Your task to perform on an android device: turn off picture-in-picture Image 0: 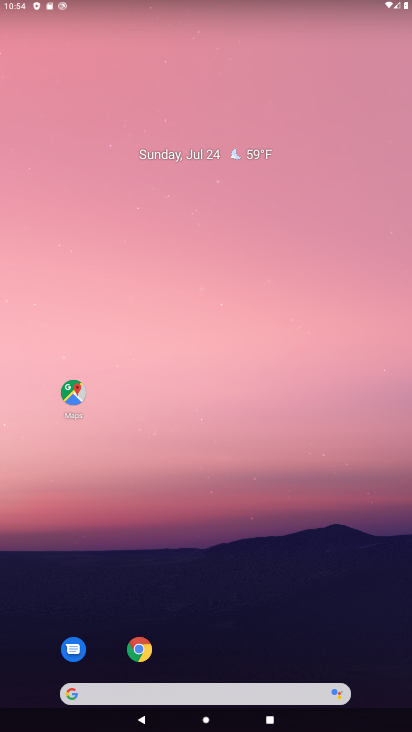
Step 0: click (144, 649)
Your task to perform on an android device: turn off picture-in-picture Image 1: 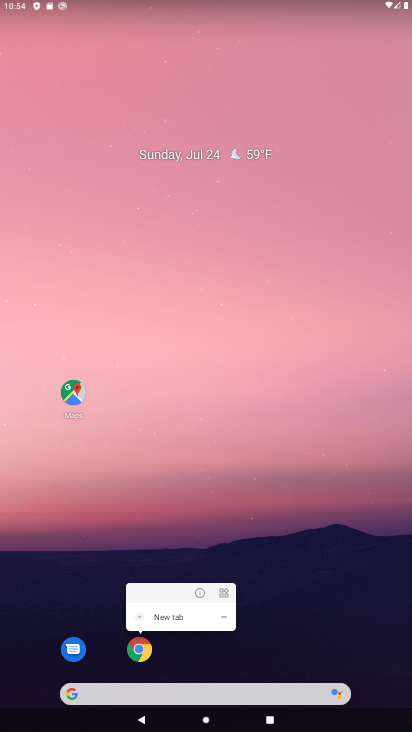
Step 1: click (199, 592)
Your task to perform on an android device: turn off picture-in-picture Image 2: 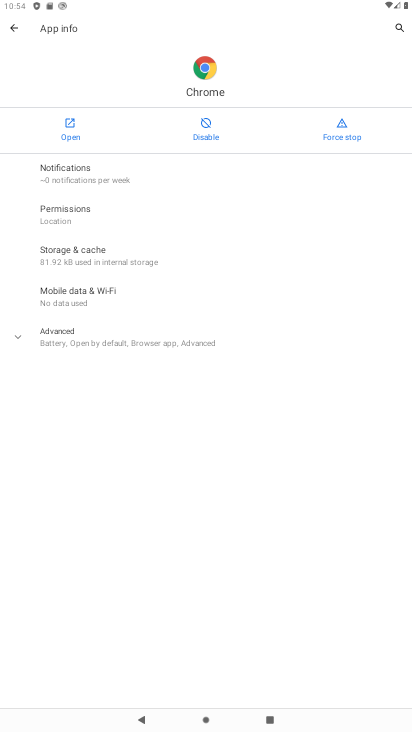
Step 2: click (74, 350)
Your task to perform on an android device: turn off picture-in-picture Image 3: 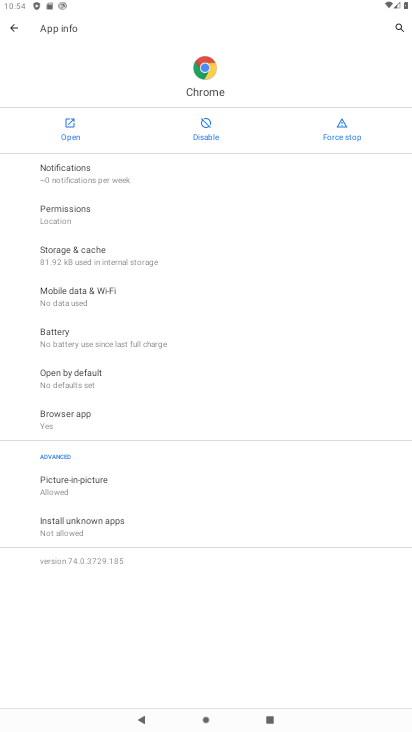
Step 3: click (119, 489)
Your task to perform on an android device: turn off picture-in-picture Image 4: 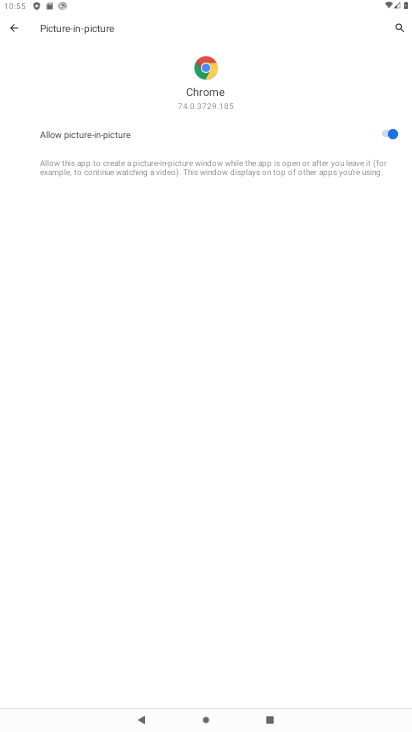
Step 4: click (380, 125)
Your task to perform on an android device: turn off picture-in-picture Image 5: 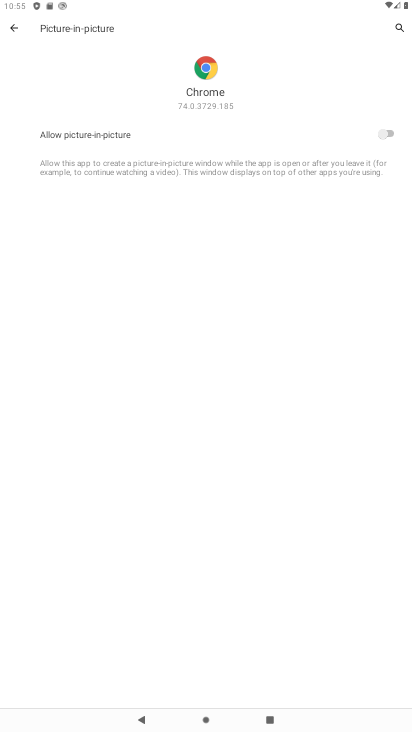
Step 5: task complete